Your task to perform on an android device: Go to sound settings Image 0: 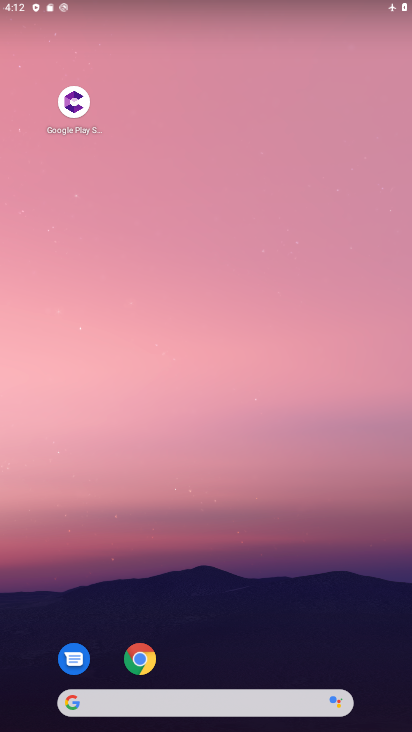
Step 0: drag from (341, 643) to (340, 205)
Your task to perform on an android device: Go to sound settings Image 1: 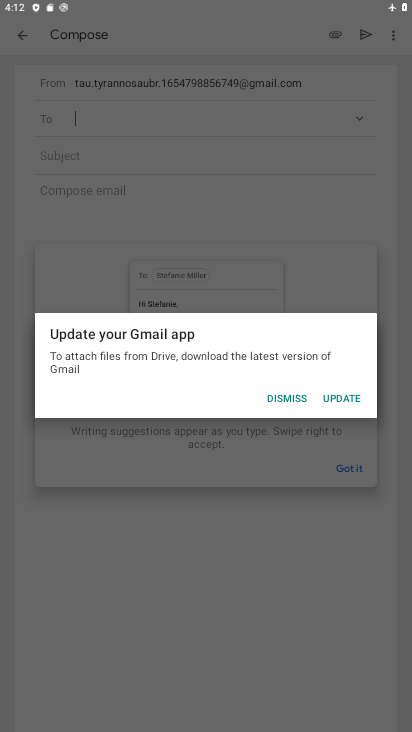
Step 1: press home button
Your task to perform on an android device: Go to sound settings Image 2: 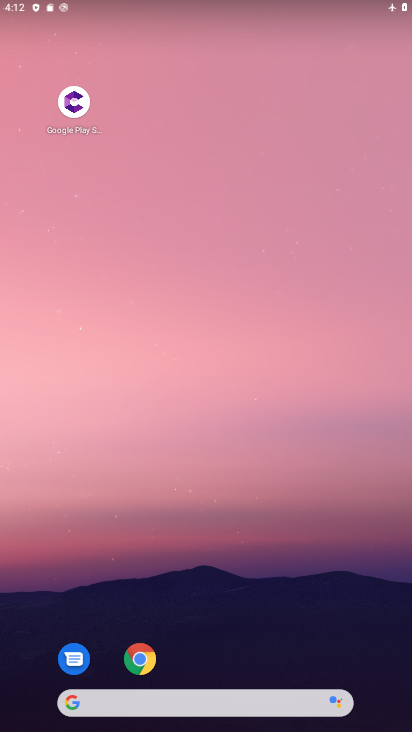
Step 2: drag from (338, 604) to (361, 157)
Your task to perform on an android device: Go to sound settings Image 3: 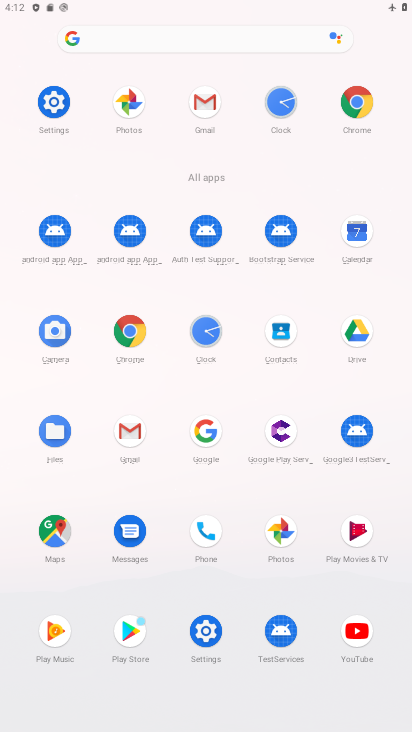
Step 3: click (206, 628)
Your task to perform on an android device: Go to sound settings Image 4: 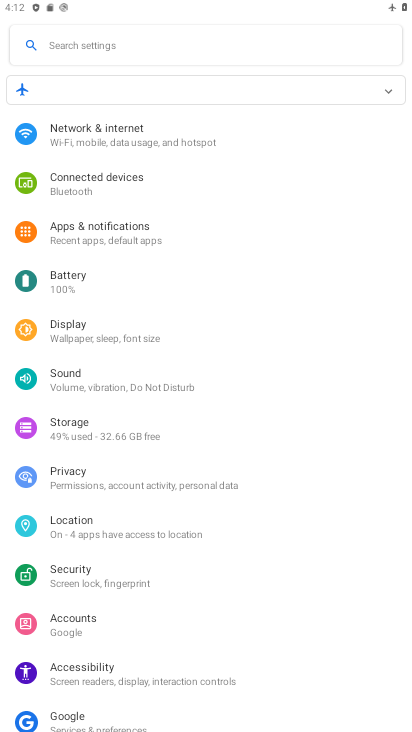
Step 4: click (184, 387)
Your task to perform on an android device: Go to sound settings Image 5: 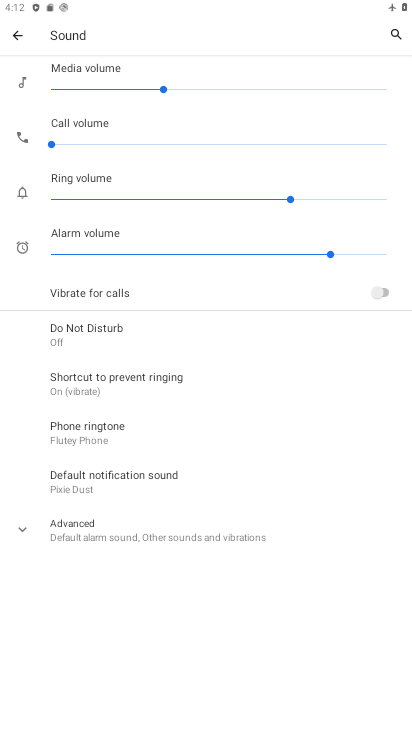
Step 5: task complete